Your task to perform on an android device: delete location history Image 0: 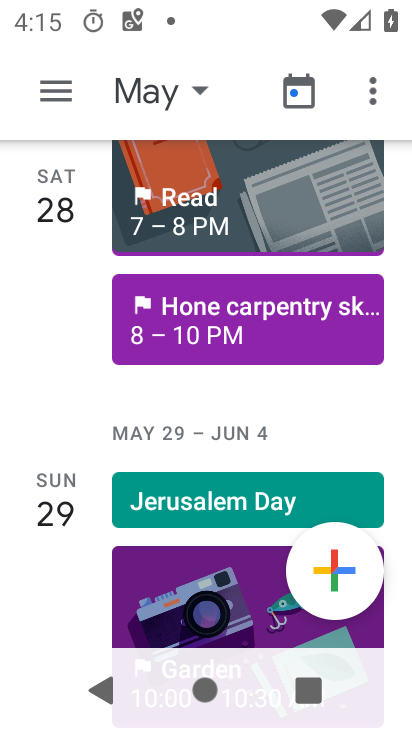
Step 0: press home button
Your task to perform on an android device: delete location history Image 1: 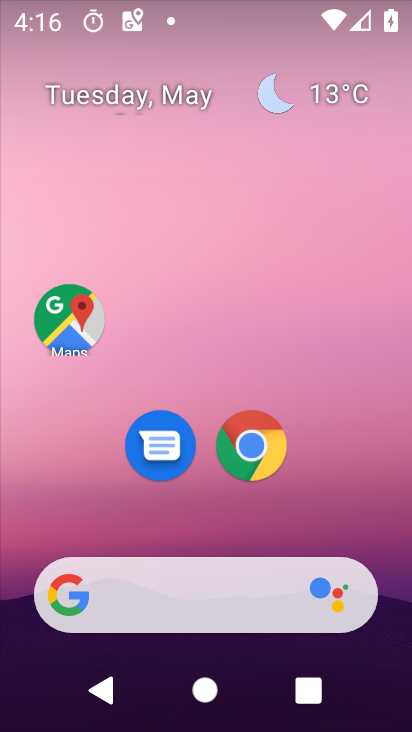
Step 1: click (70, 314)
Your task to perform on an android device: delete location history Image 2: 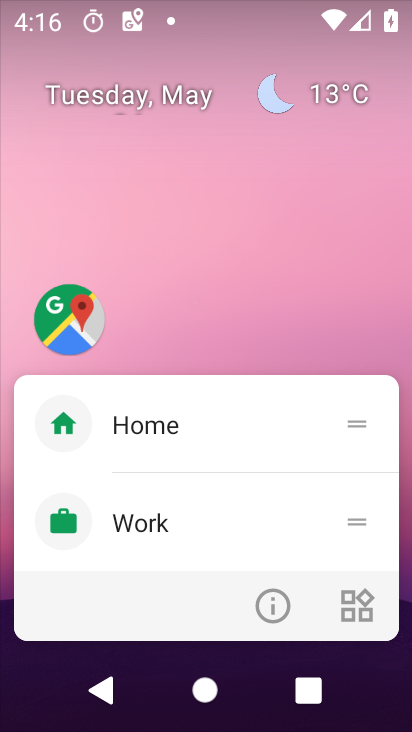
Step 2: click (70, 311)
Your task to perform on an android device: delete location history Image 3: 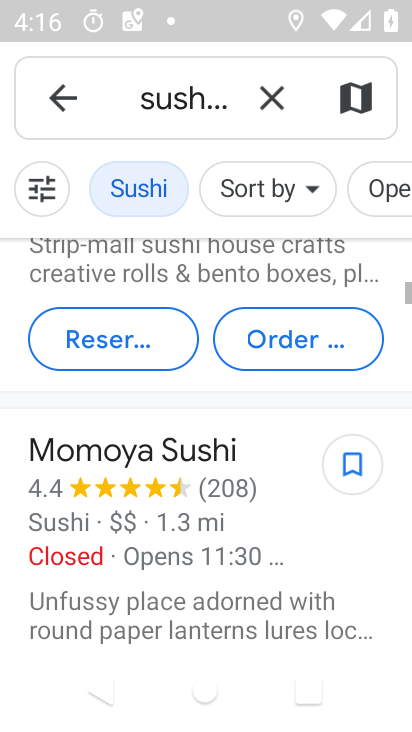
Step 3: click (268, 96)
Your task to perform on an android device: delete location history Image 4: 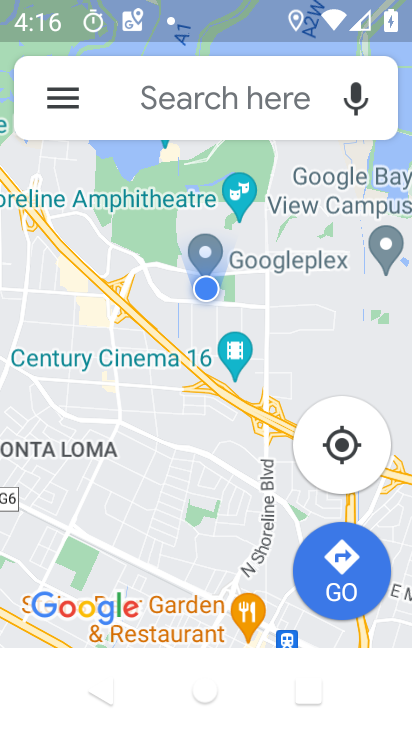
Step 4: click (49, 94)
Your task to perform on an android device: delete location history Image 5: 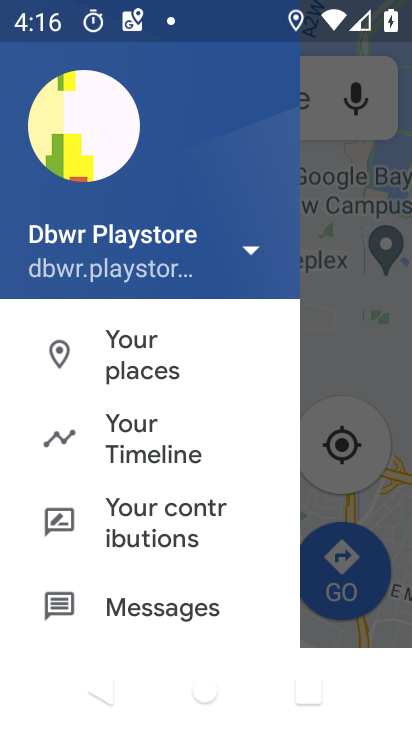
Step 5: click (91, 434)
Your task to perform on an android device: delete location history Image 6: 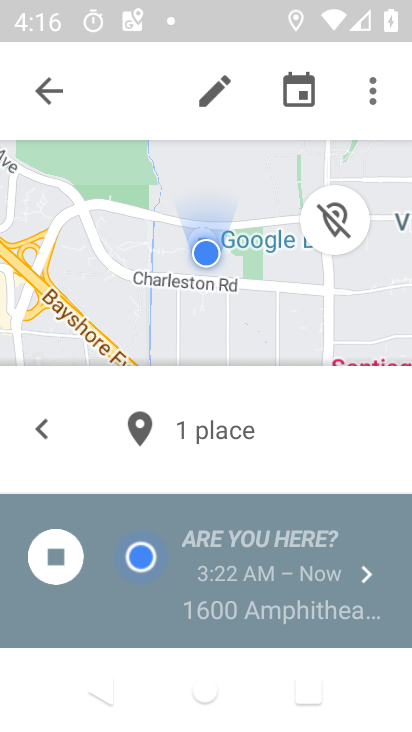
Step 6: click (371, 84)
Your task to perform on an android device: delete location history Image 7: 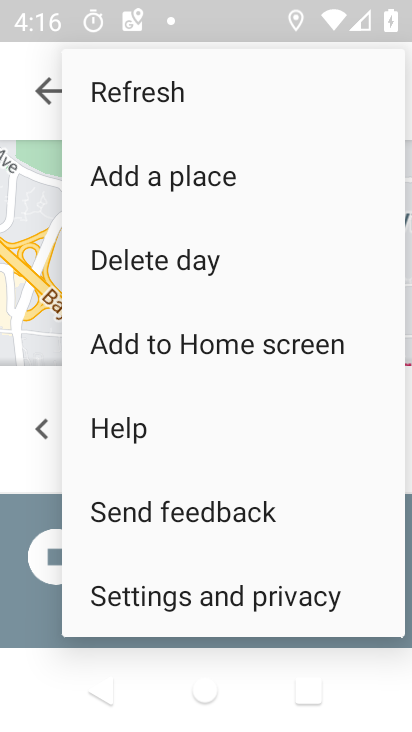
Step 7: click (206, 586)
Your task to perform on an android device: delete location history Image 8: 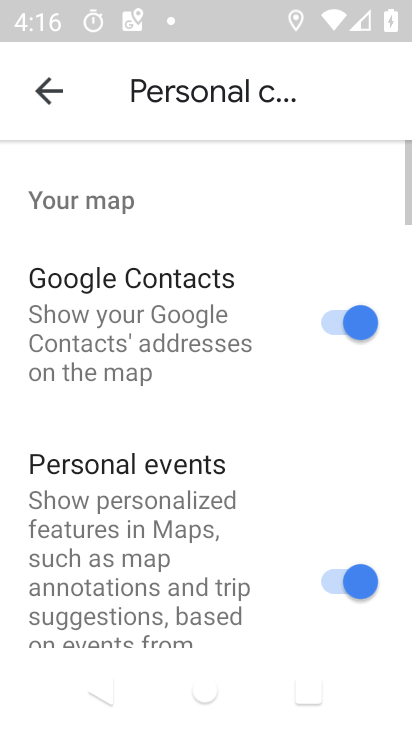
Step 8: drag from (244, 608) to (266, 257)
Your task to perform on an android device: delete location history Image 9: 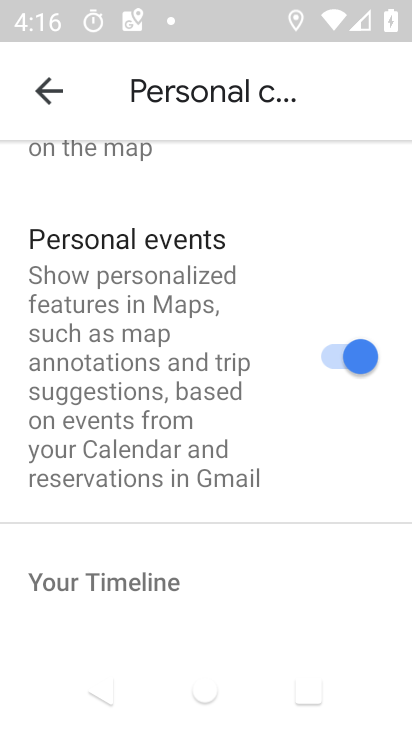
Step 9: drag from (230, 602) to (253, 188)
Your task to perform on an android device: delete location history Image 10: 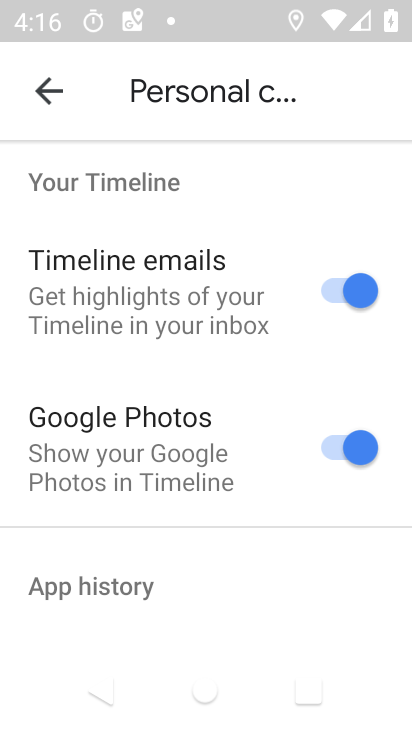
Step 10: drag from (208, 570) to (228, 274)
Your task to perform on an android device: delete location history Image 11: 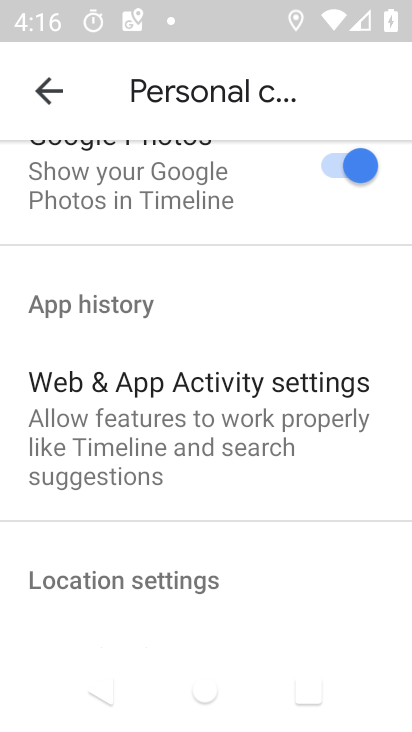
Step 11: drag from (226, 562) to (248, 204)
Your task to perform on an android device: delete location history Image 12: 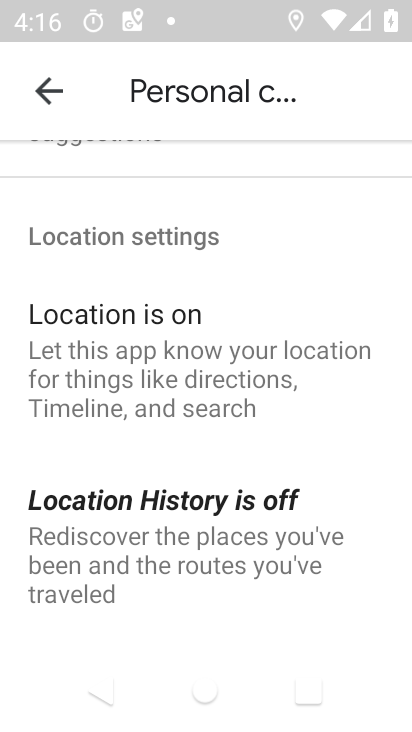
Step 12: drag from (217, 549) to (233, 128)
Your task to perform on an android device: delete location history Image 13: 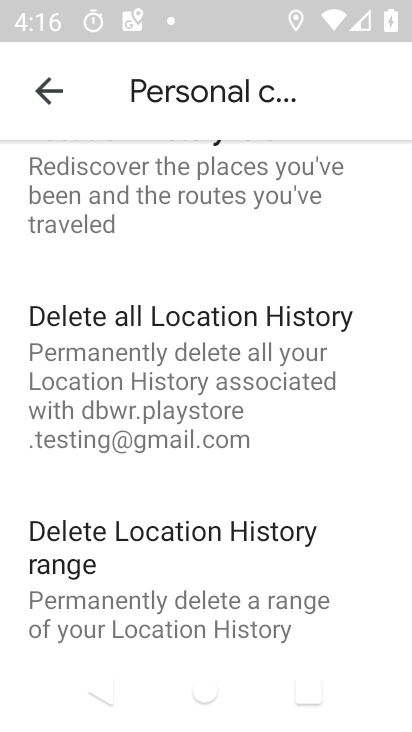
Step 13: click (157, 377)
Your task to perform on an android device: delete location history Image 14: 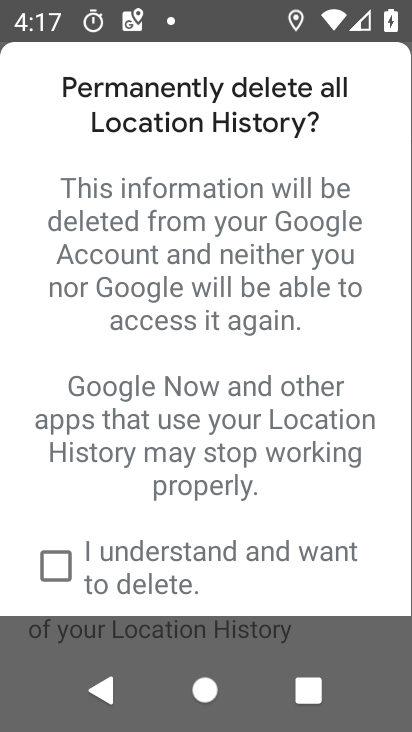
Step 14: click (59, 560)
Your task to perform on an android device: delete location history Image 15: 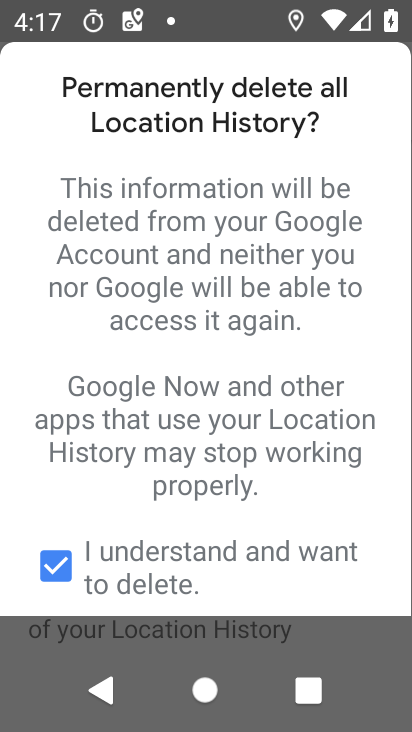
Step 15: click (312, 600)
Your task to perform on an android device: delete location history Image 16: 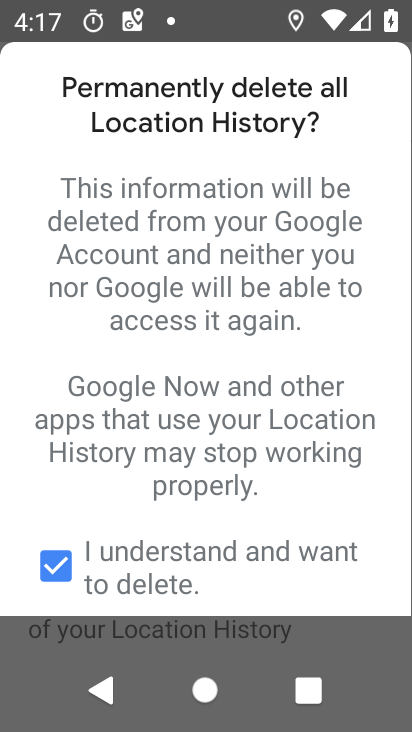
Step 16: click (343, 618)
Your task to perform on an android device: delete location history Image 17: 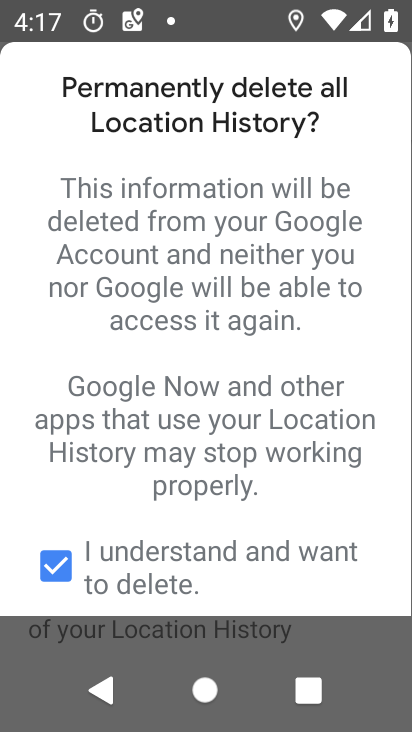
Step 17: click (343, 612)
Your task to perform on an android device: delete location history Image 18: 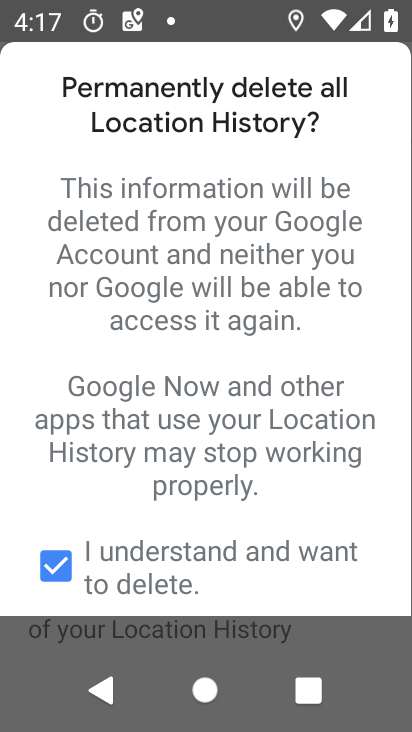
Step 18: task complete